Your task to perform on an android device: What's the weather today? Image 0: 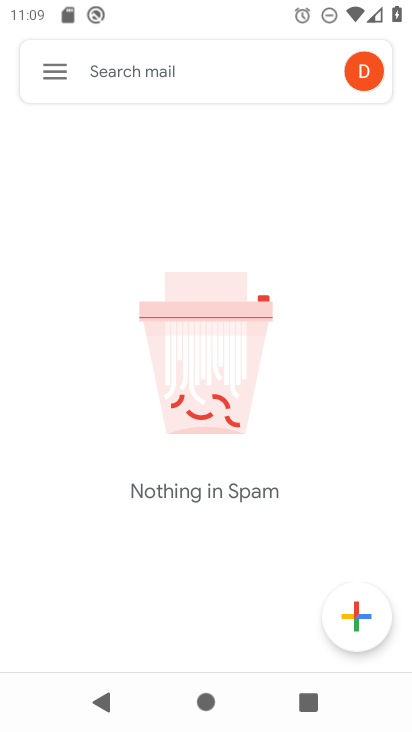
Step 0: press home button
Your task to perform on an android device: What's the weather today? Image 1: 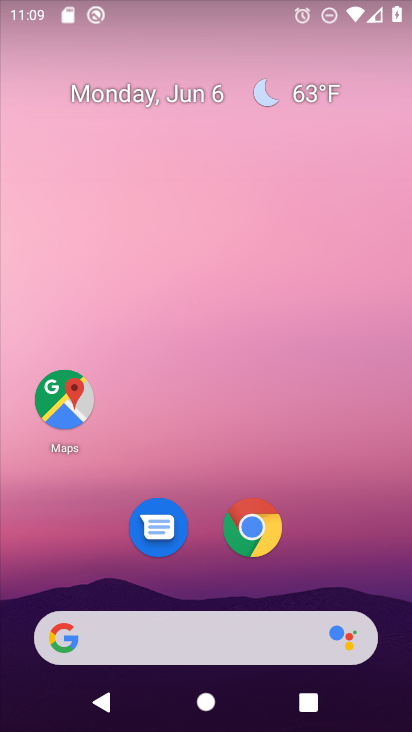
Step 1: click (292, 92)
Your task to perform on an android device: What's the weather today? Image 2: 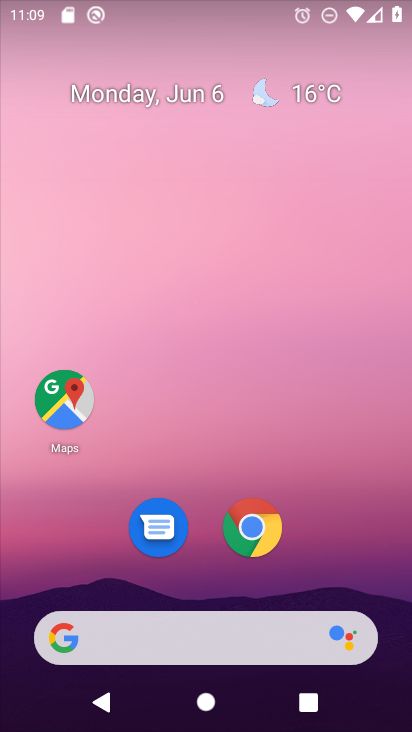
Step 2: click (291, 104)
Your task to perform on an android device: What's the weather today? Image 3: 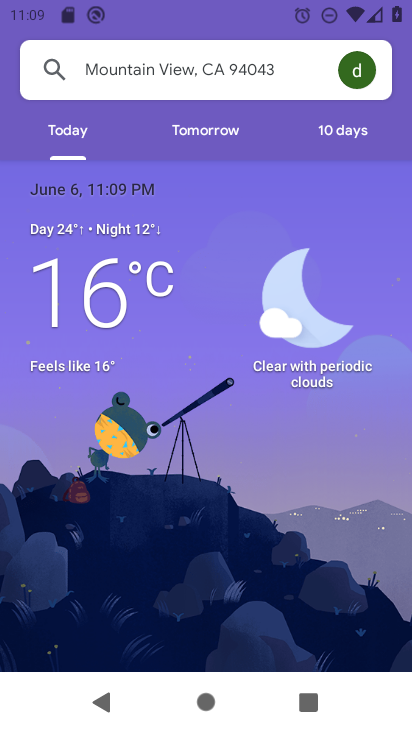
Step 3: task complete